Your task to perform on an android device: turn off data saver in the chrome app Image 0: 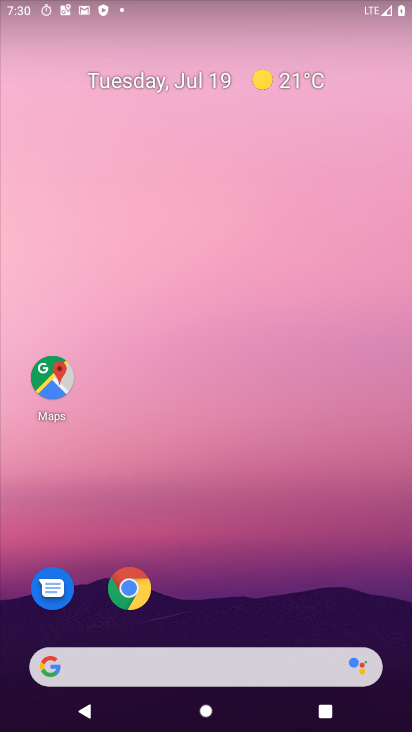
Step 0: drag from (248, 574) to (240, 167)
Your task to perform on an android device: turn off data saver in the chrome app Image 1: 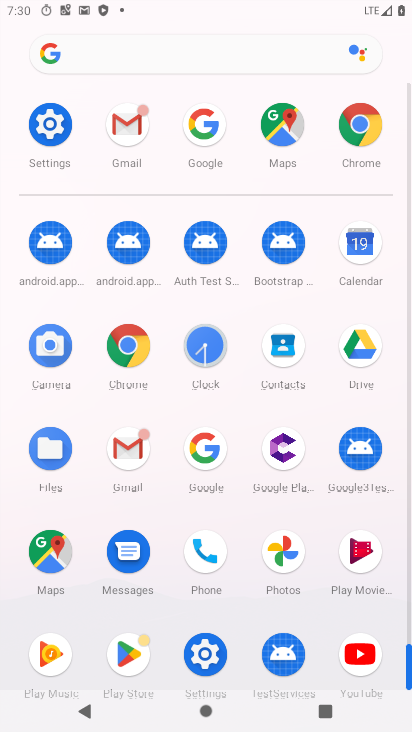
Step 1: click (139, 352)
Your task to perform on an android device: turn off data saver in the chrome app Image 2: 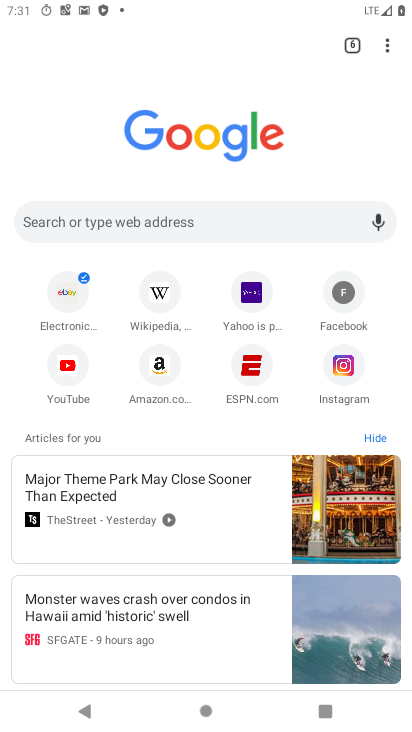
Step 2: click (385, 52)
Your task to perform on an android device: turn off data saver in the chrome app Image 3: 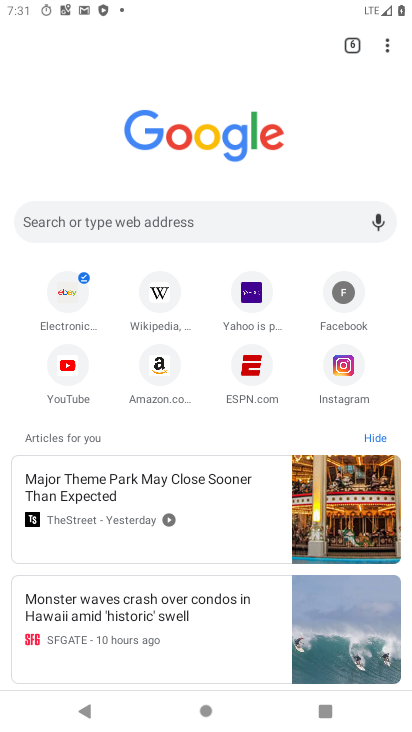
Step 3: click (384, 52)
Your task to perform on an android device: turn off data saver in the chrome app Image 4: 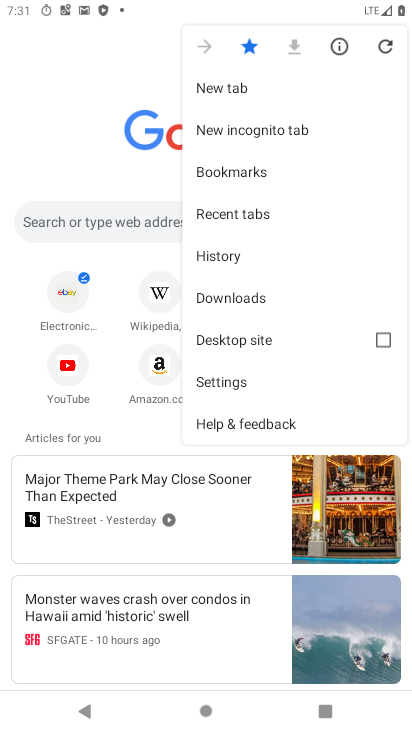
Step 4: click (240, 386)
Your task to perform on an android device: turn off data saver in the chrome app Image 5: 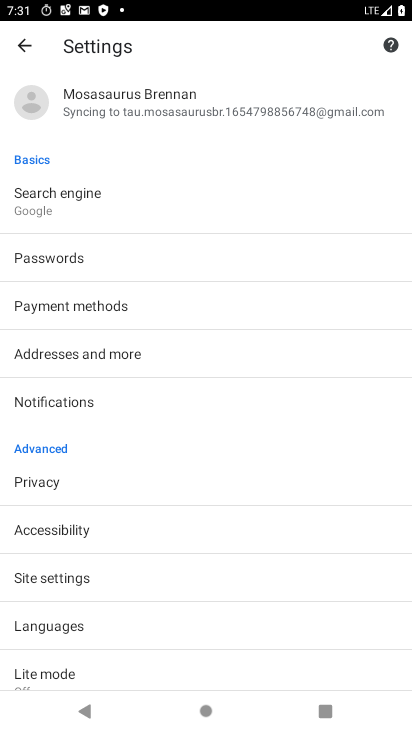
Step 5: click (87, 671)
Your task to perform on an android device: turn off data saver in the chrome app Image 6: 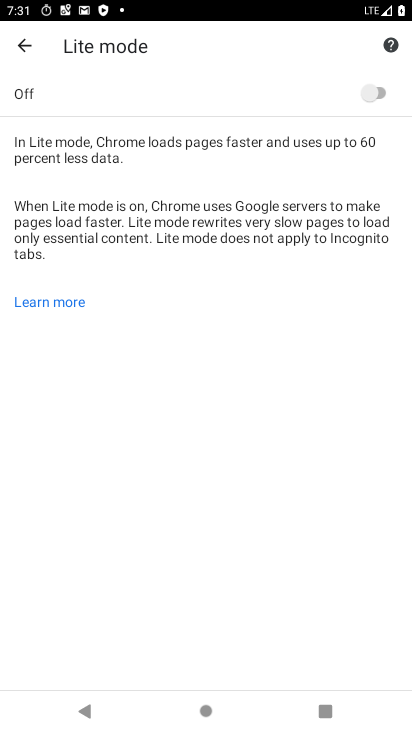
Step 6: task complete